Your task to perform on an android device: set the timer Image 0: 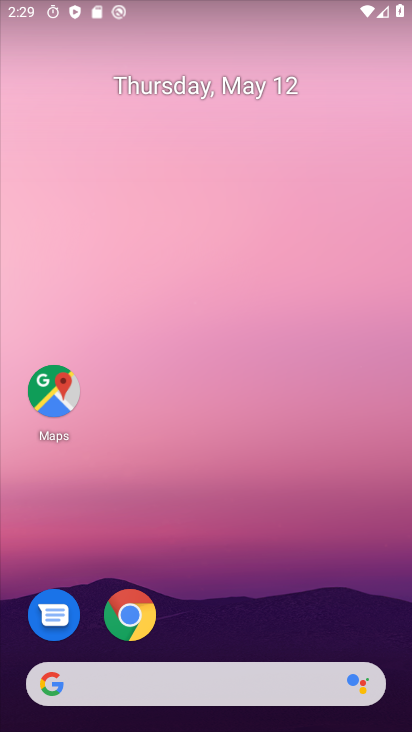
Step 0: press home button
Your task to perform on an android device: set the timer Image 1: 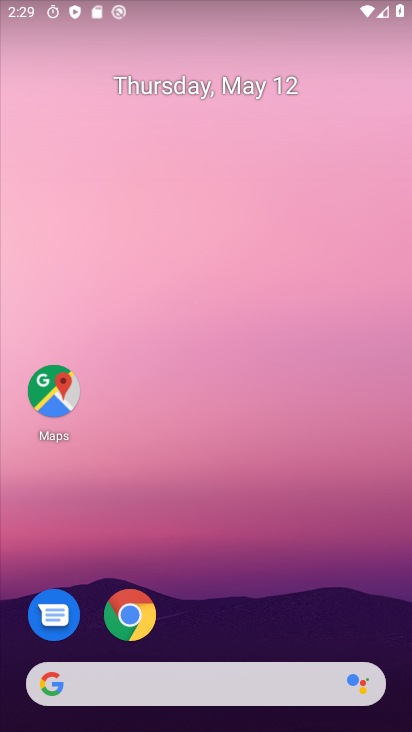
Step 1: drag from (75, 522) to (256, 146)
Your task to perform on an android device: set the timer Image 2: 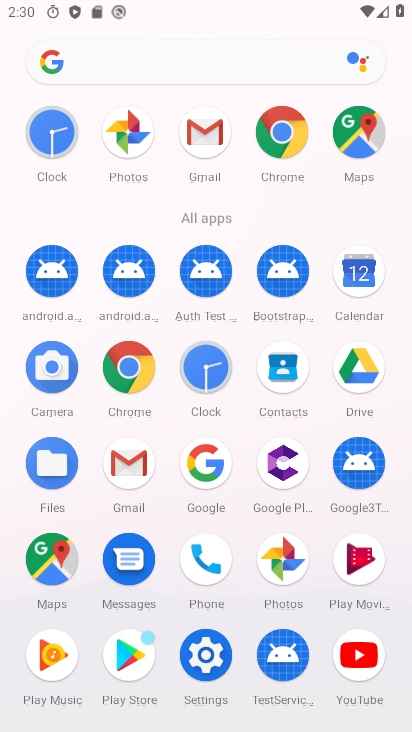
Step 2: click (212, 368)
Your task to perform on an android device: set the timer Image 3: 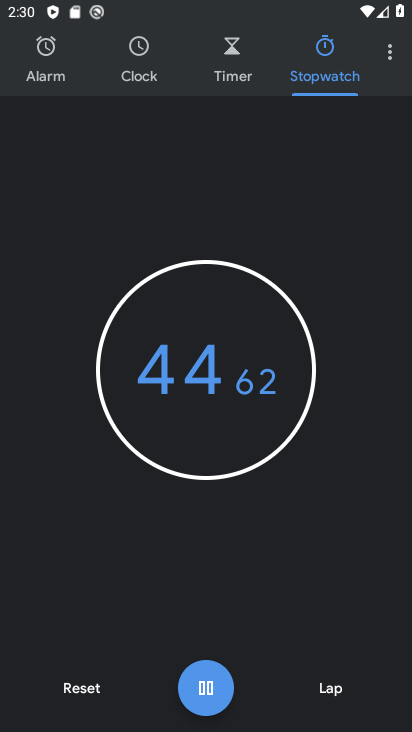
Step 3: click (235, 50)
Your task to perform on an android device: set the timer Image 4: 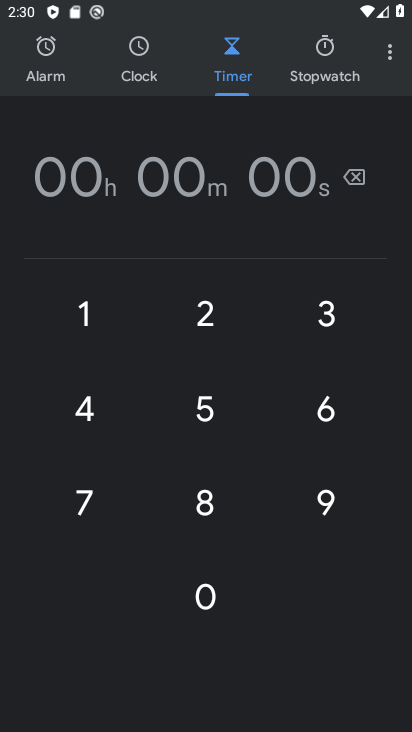
Step 4: click (200, 586)
Your task to perform on an android device: set the timer Image 5: 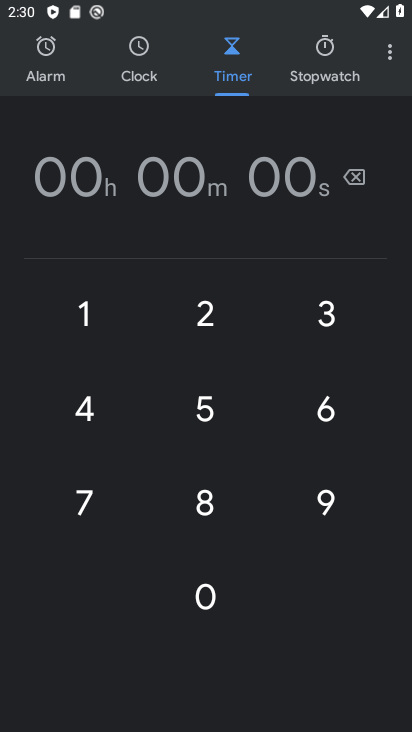
Step 5: click (190, 411)
Your task to perform on an android device: set the timer Image 6: 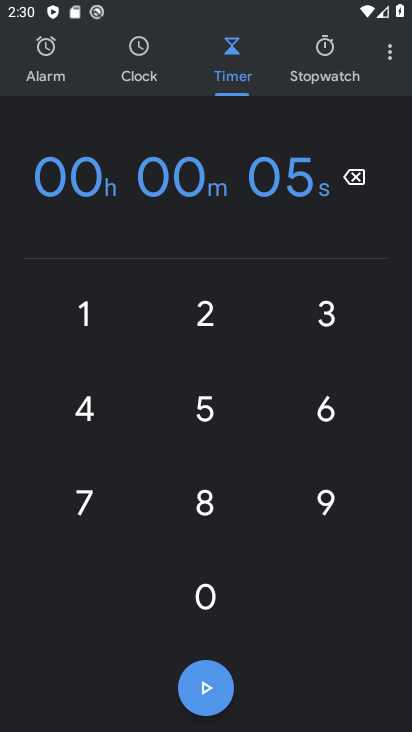
Step 6: click (56, 512)
Your task to perform on an android device: set the timer Image 7: 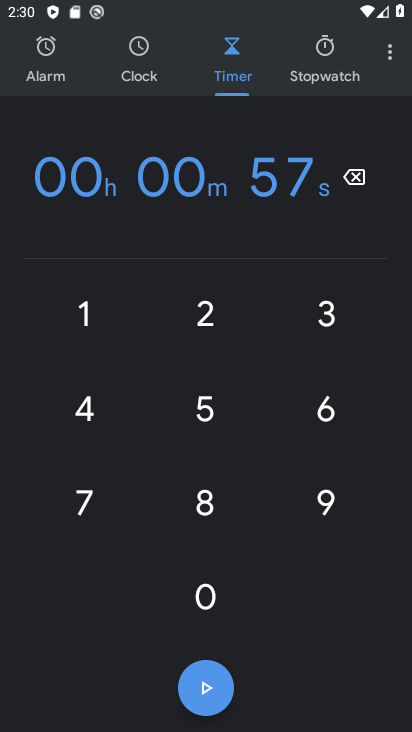
Step 7: click (190, 603)
Your task to perform on an android device: set the timer Image 8: 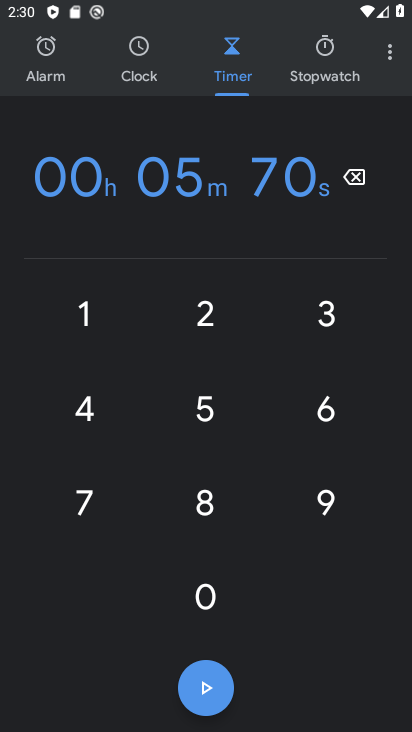
Step 8: click (193, 601)
Your task to perform on an android device: set the timer Image 9: 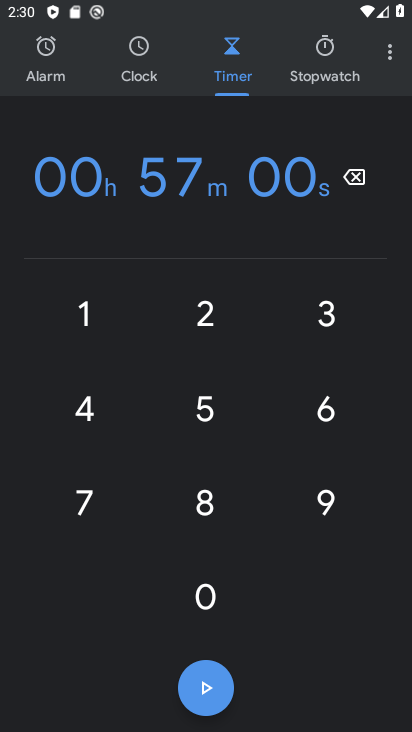
Step 9: click (193, 597)
Your task to perform on an android device: set the timer Image 10: 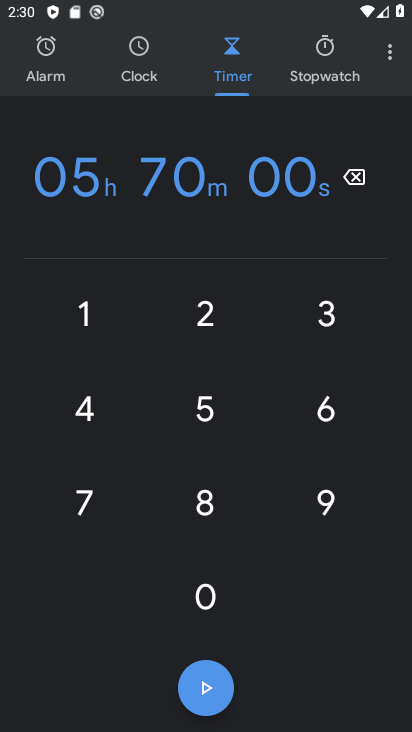
Step 10: click (194, 693)
Your task to perform on an android device: set the timer Image 11: 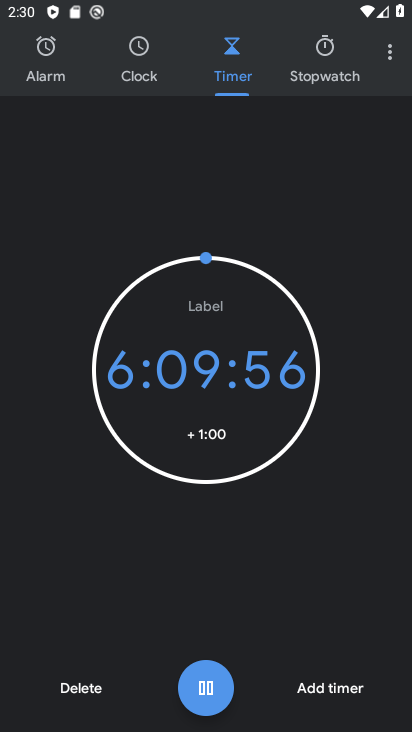
Step 11: task complete